Your task to perform on an android device: When is my next meeting? Image 0: 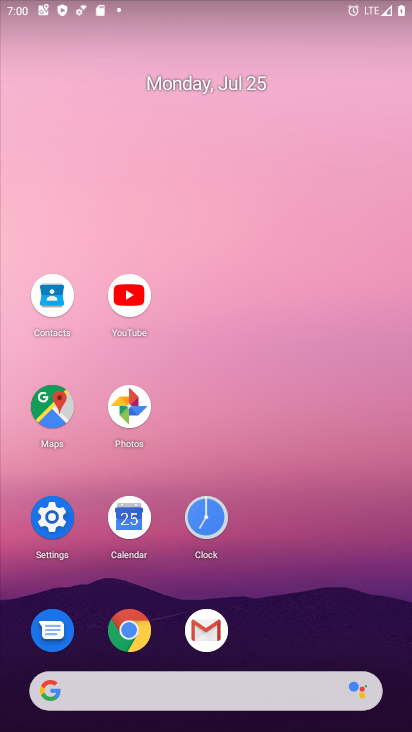
Step 0: click (125, 517)
Your task to perform on an android device: When is my next meeting? Image 1: 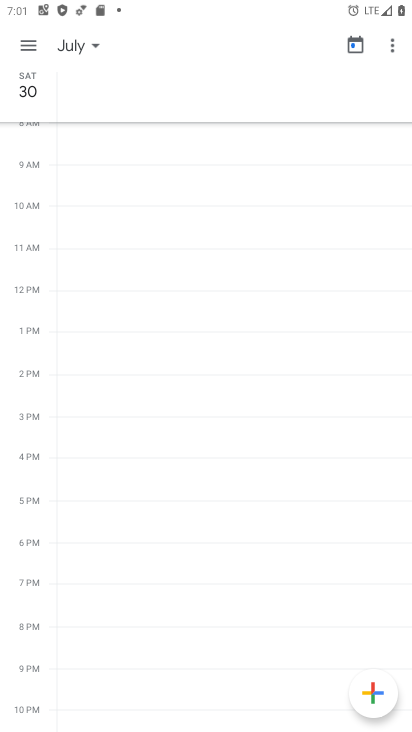
Step 1: click (92, 41)
Your task to perform on an android device: When is my next meeting? Image 2: 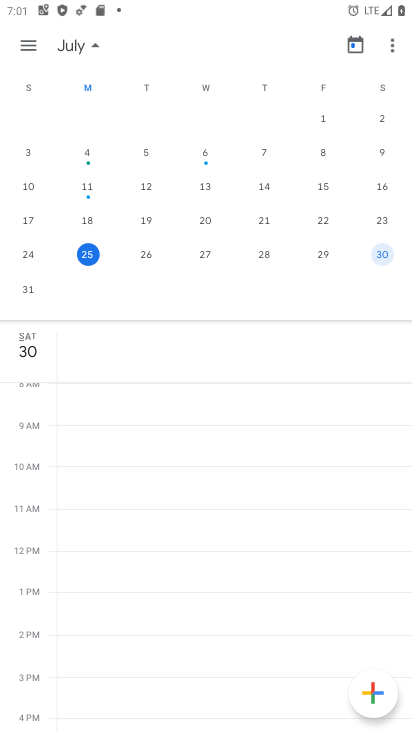
Step 2: click (86, 256)
Your task to perform on an android device: When is my next meeting? Image 3: 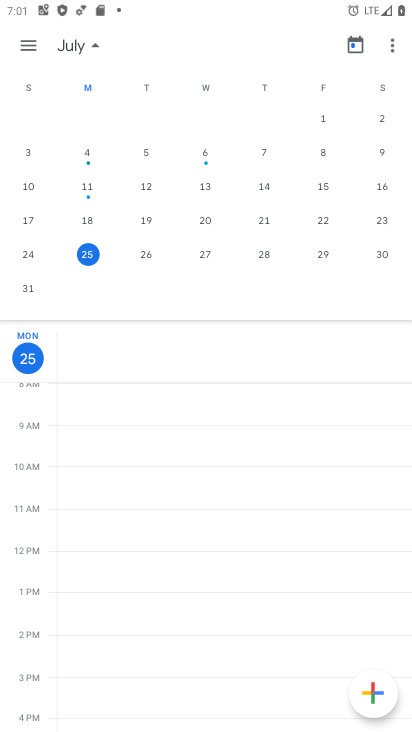
Step 3: task complete